Your task to perform on an android device: Open my contact list Image 0: 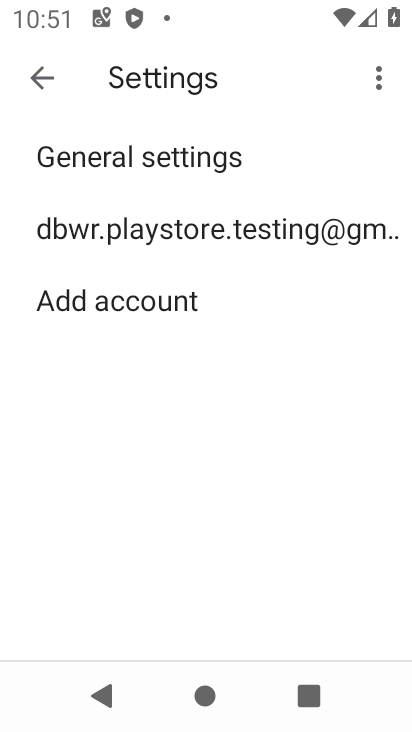
Step 0: press home button
Your task to perform on an android device: Open my contact list Image 1: 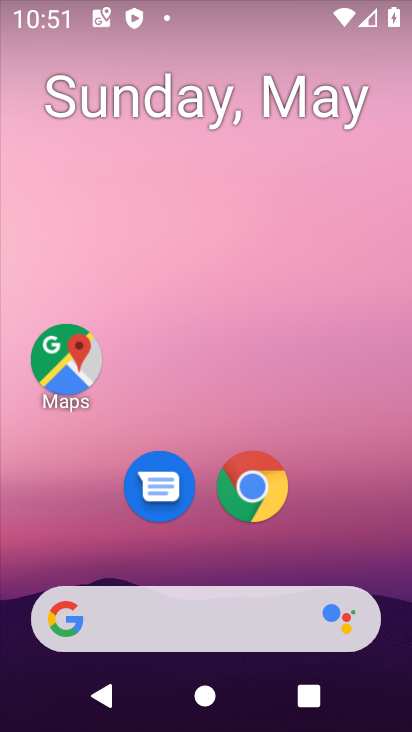
Step 1: drag from (286, 554) to (247, 123)
Your task to perform on an android device: Open my contact list Image 2: 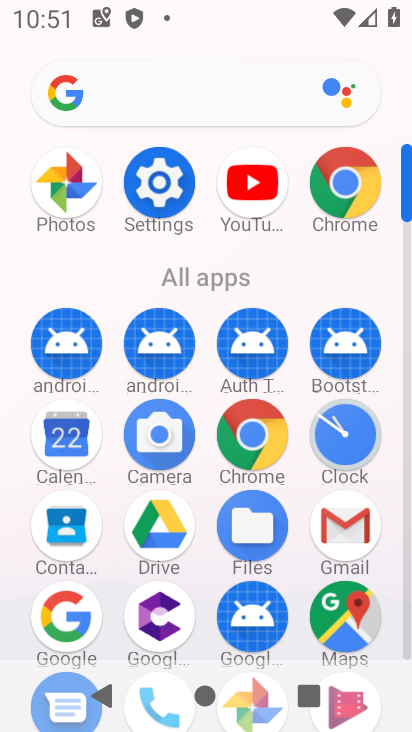
Step 2: drag from (204, 634) to (209, 412)
Your task to perform on an android device: Open my contact list Image 3: 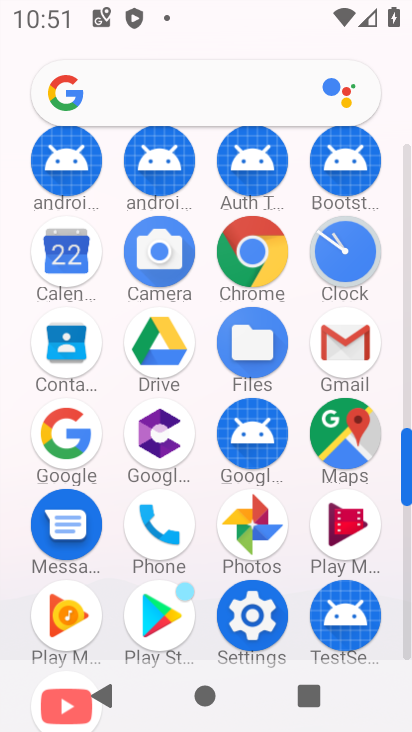
Step 3: click (68, 379)
Your task to perform on an android device: Open my contact list Image 4: 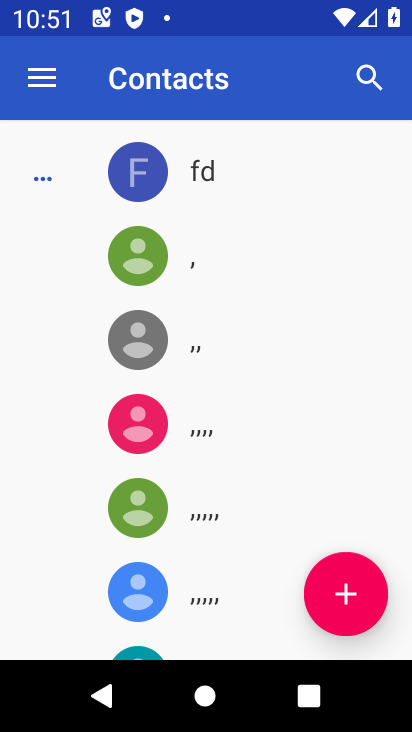
Step 4: task complete